Your task to perform on an android device: Add "apple airpods pro" to the cart on target Image 0: 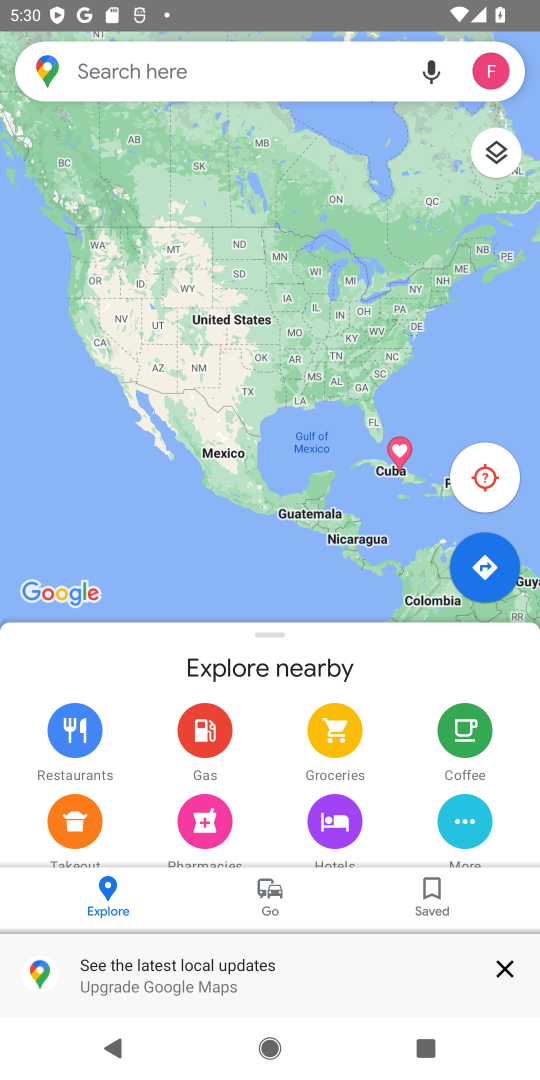
Step 0: press home button
Your task to perform on an android device: Add "apple airpods pro" to the cart on target Image 1: 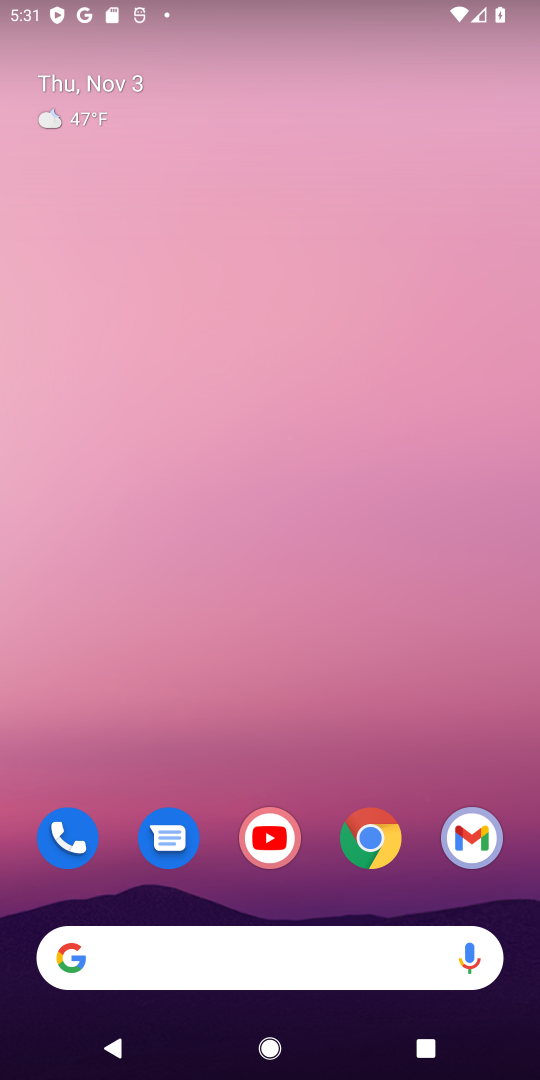
Step 1: click (277, 957)
Your task to perform on an android device: Add "apple airpods pro" to the cart on target Image 2: 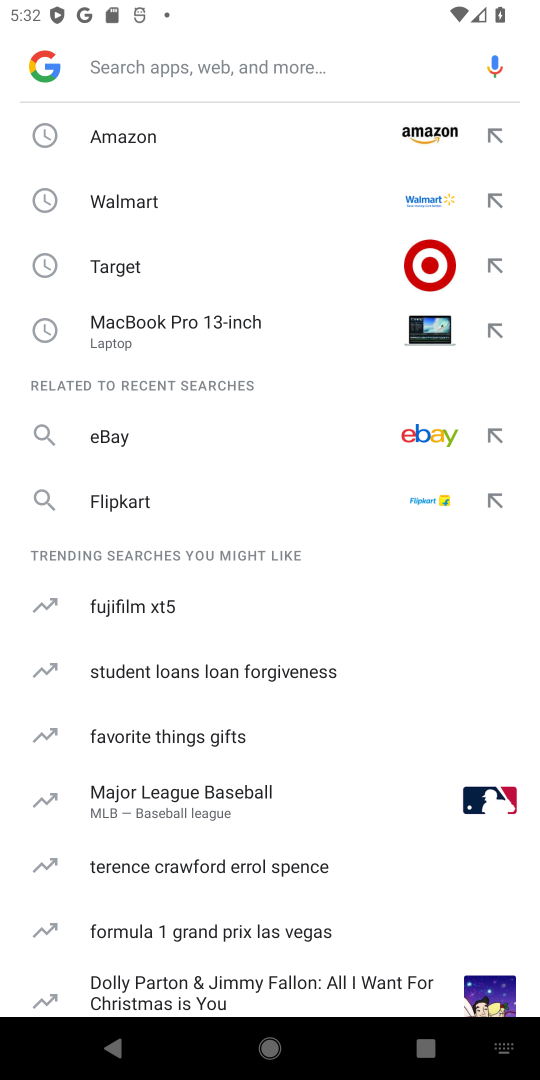
Step 2: click (95, 277)
Your task to perform on an android device: Add "apple airpods pro" to the cart on target Image 3: 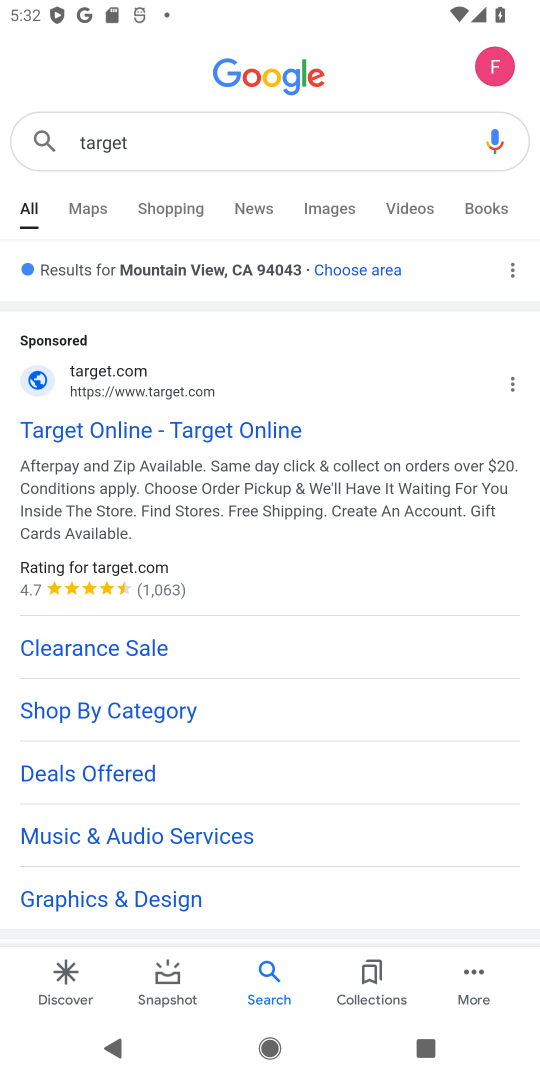
Step 3: click (110, 424)
Your task to perform on an android device: Add "apple airpods pro" to the cart on target Image 4: 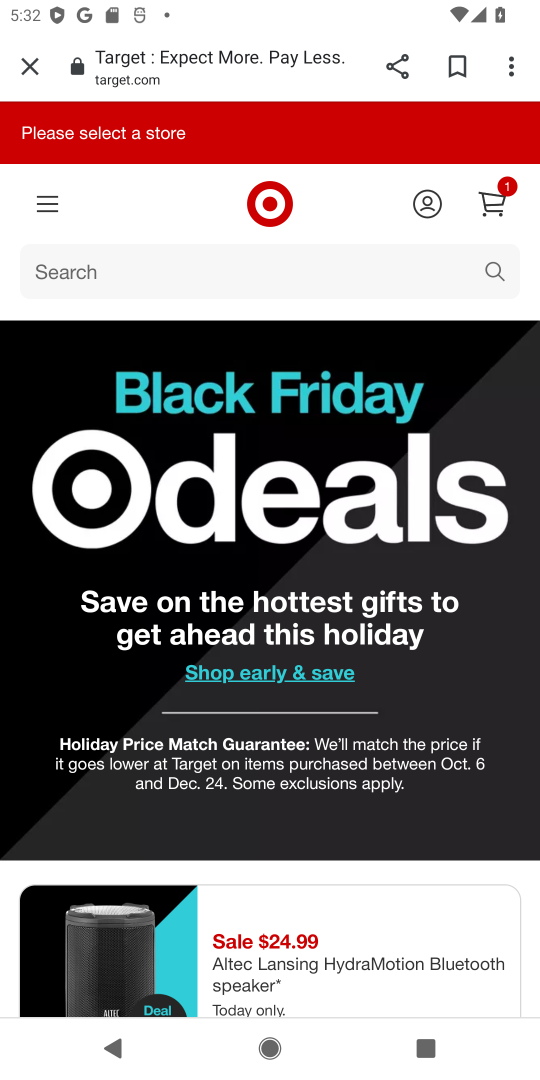
Step 4: click (310, 275)
Your task to perform on an android device: Add "apple airpods pro" to the cart on target Image 5: 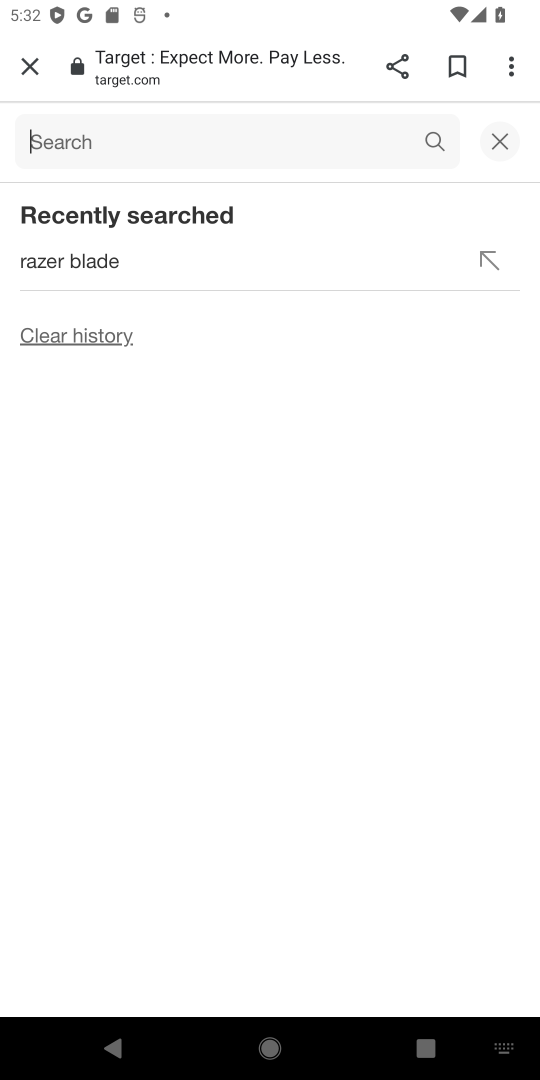
Step 5: type "apple airpods pro"
Your task to perform on an android device: Add "apple airpods pro" to the cart on target Image 6: 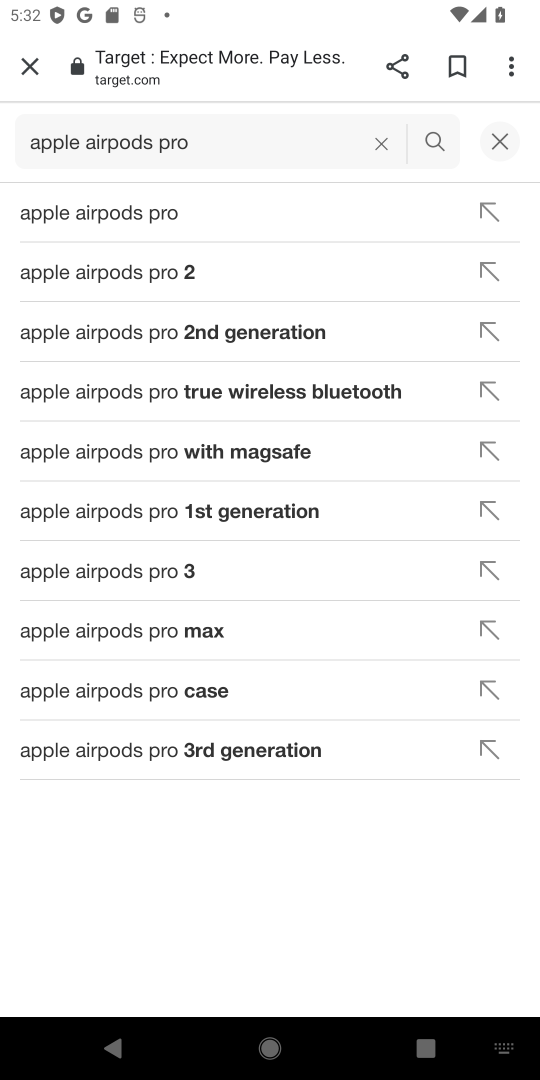
Step 6: click (149, 209)
Your task to perform on an android device: Add "apple airpods pro" to the cart on target Image 7: 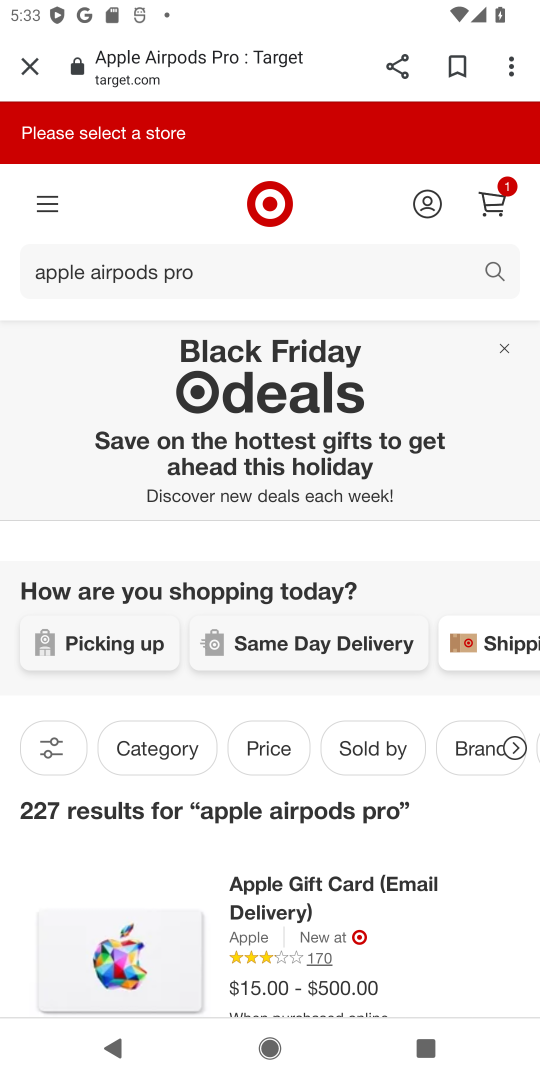
Step 7: drag from (345, 879) to (350, 541)
Your task to perform on an android device: Add "apple airpods pro" to the cart on target Image 8: 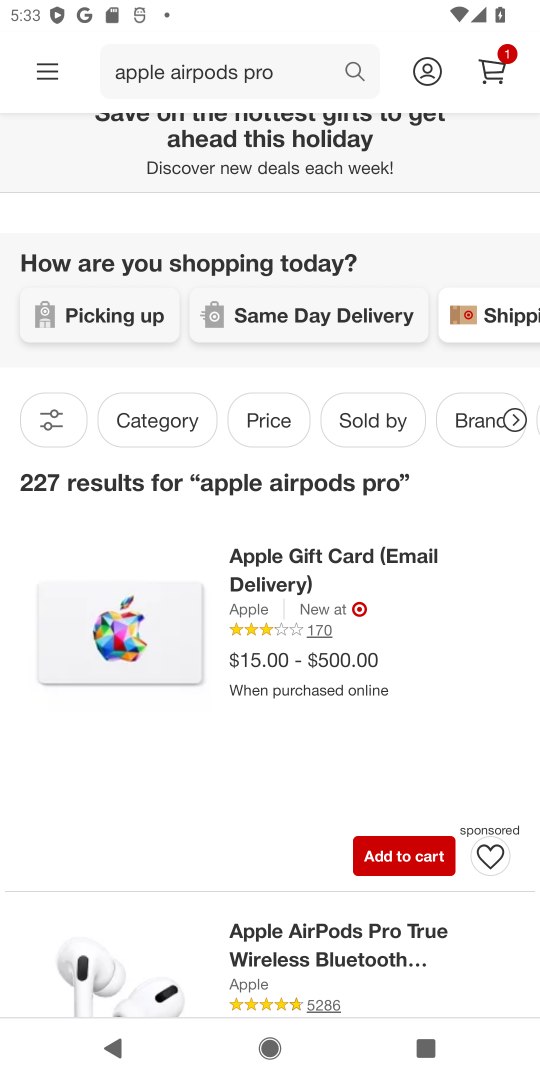
Step 8: click (402, 872)
Your task to perform on an android device: Add "apple airpods pro" to the cart on target Image 9: 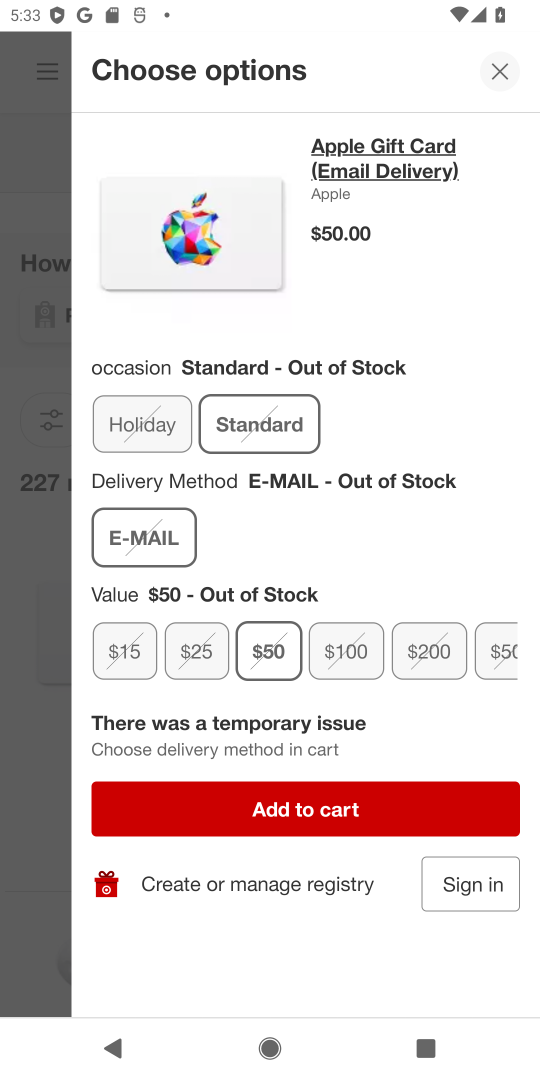
Step 9: click (306, 807)
Your task to perform on an android device: Add "apple airpods pro" to the cart on target Image 10: 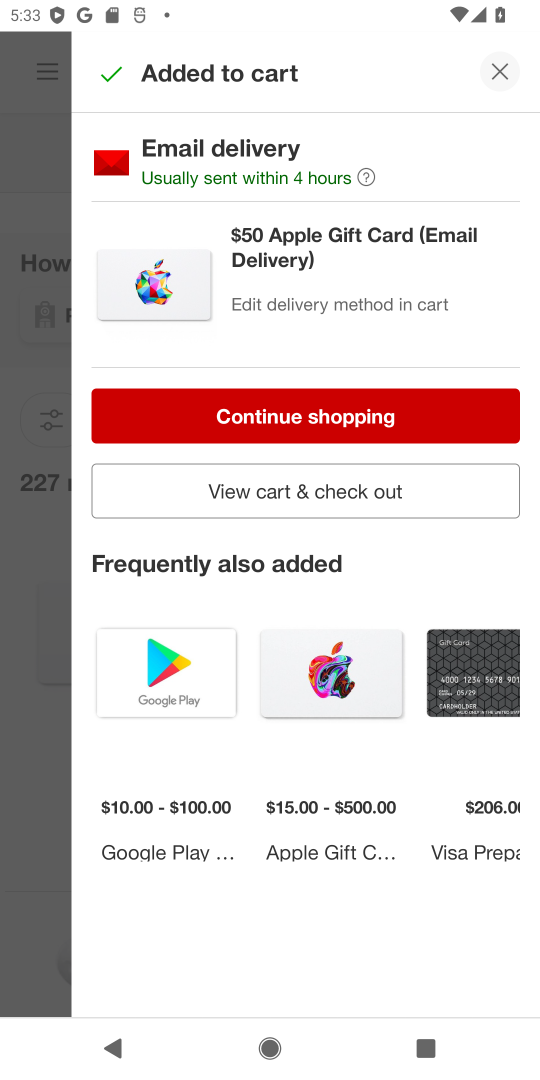
Step 10: task complete